Your task to perform on an android device: empty trash in google photos Image 0: 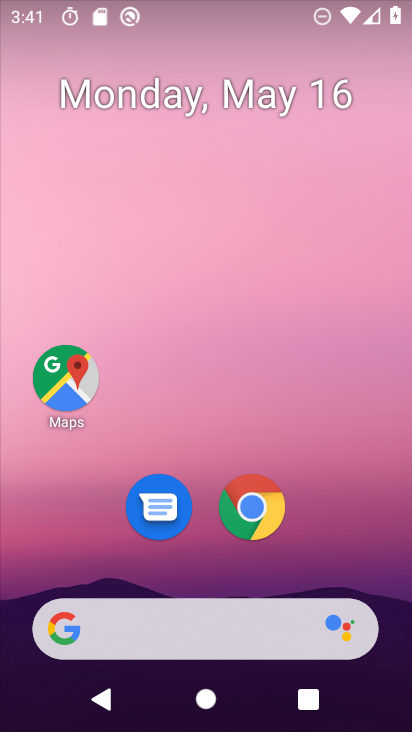
Step 0: drag from (374, 413) to (373, 39)
Your task to perform on an android device: empty trash in google photos Image 1: 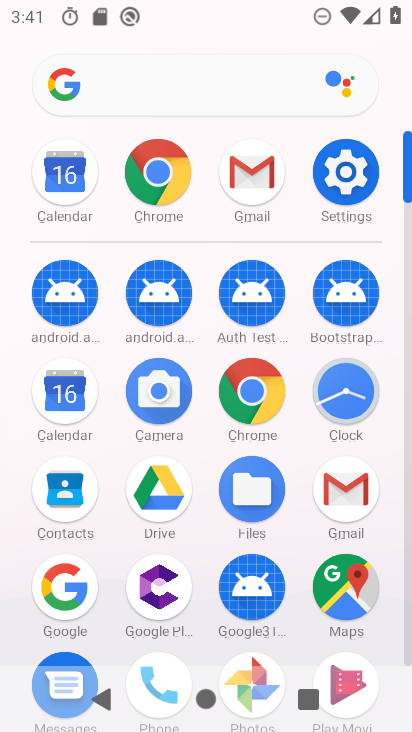
Step 1: drag from (393, 637) to (377, 260)
Your task to perform on an android device: empty trash in google photos Image 2: 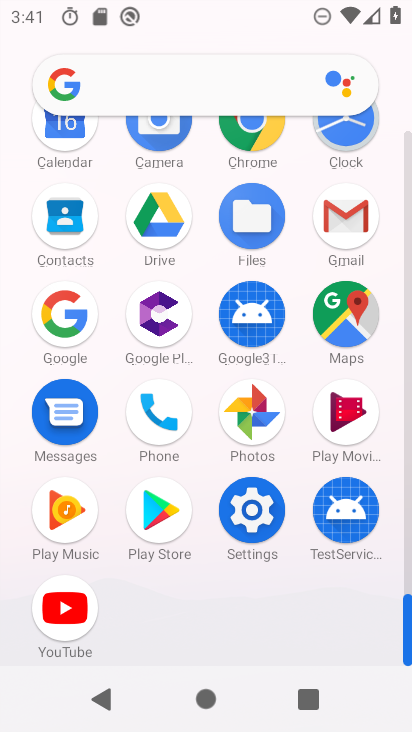
Step 2: click (263, 422)
Your task to perform on an android device: empty trash in google photos Image 3: 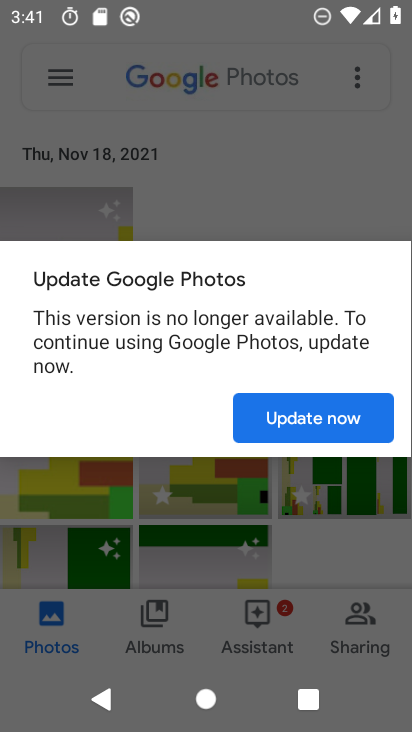
Step 3: click (291, 425)
Your task to perform on an android device: empty trash in google photos Image 4: 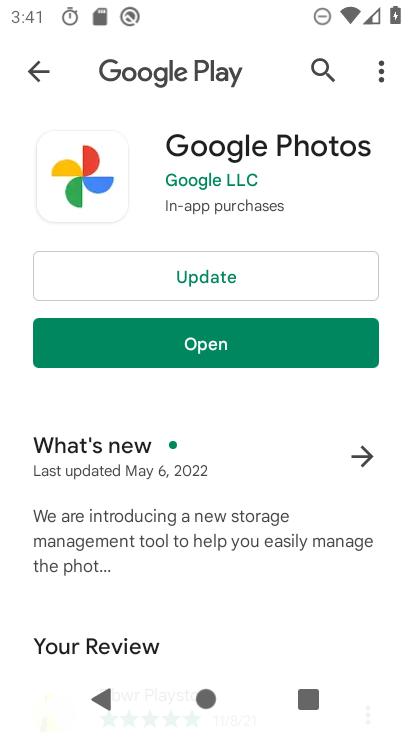
Step 4: click (186, 287)
Your task to perform on an android device: empty trash in google photos Image 5: 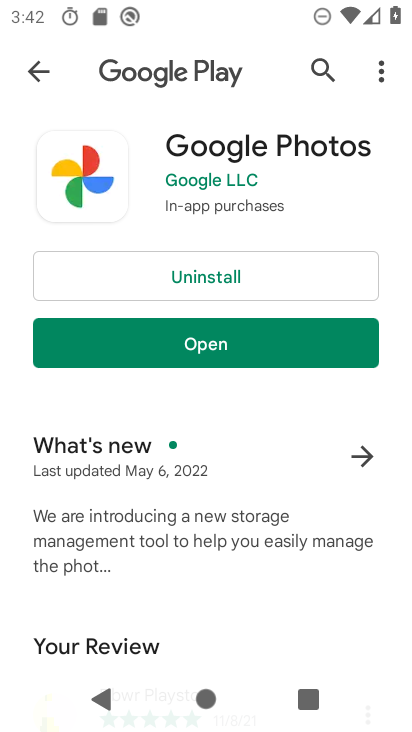
Step 5: click (197, 345)
Your task to perform on an android device: empty trash in google photos Image 6: 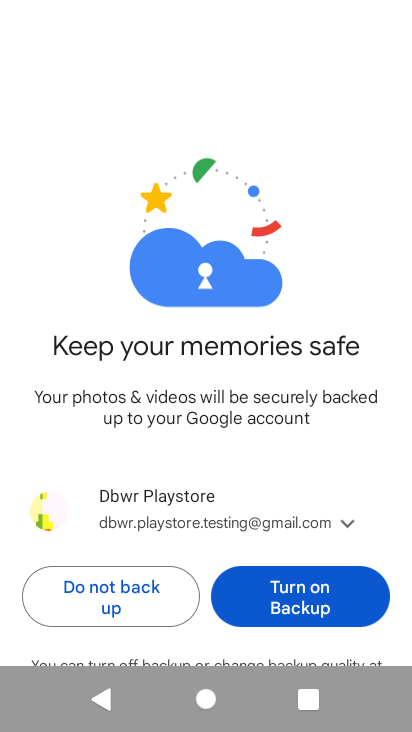
Step 6: task complete